Your task to perform on an android device: Open Chrome and go to settings Image 0: 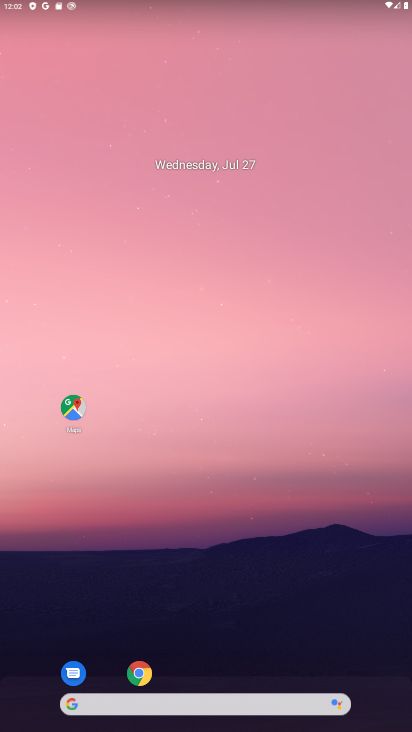
Step 0: click (147, 675)
Your task to perform on an android device: Open Chrome and go to settings Image 1: 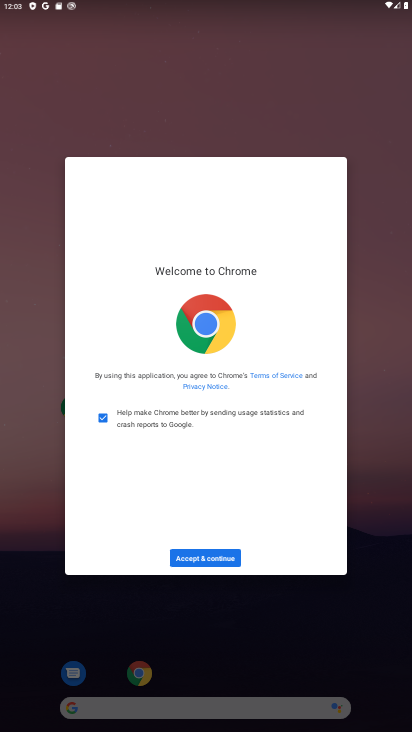
Step 1: click (196, 560)
Your task to perform on an android device: Open Chrome and go to settings Image 2: 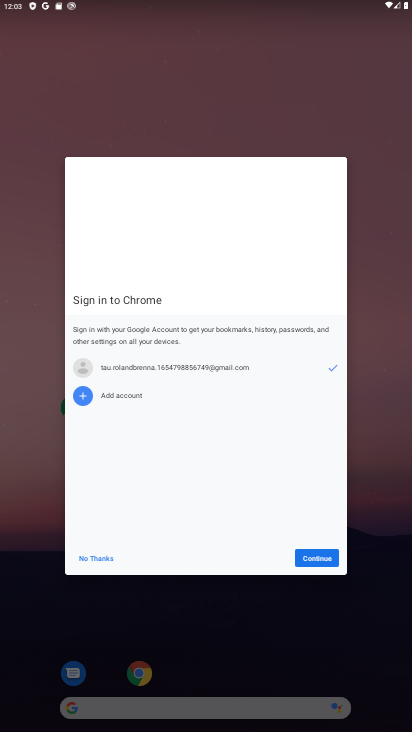
Step 2: click (99, 565)
Your task to perform on an android device: Open Chrome and go to settings Image 3: 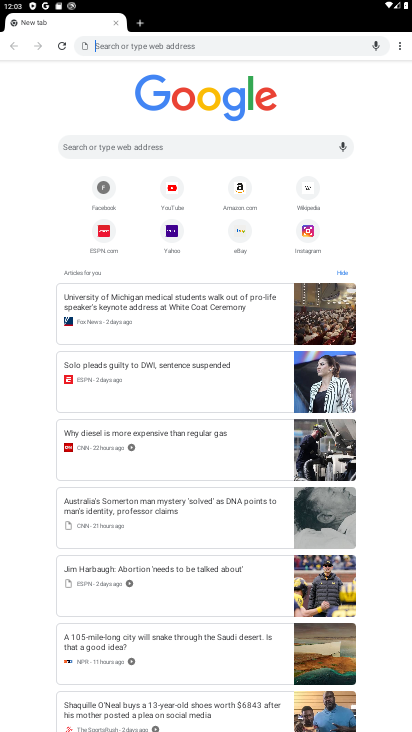
Step 3: task complete